Your task to perform on an android device: set an alarm Image 0: 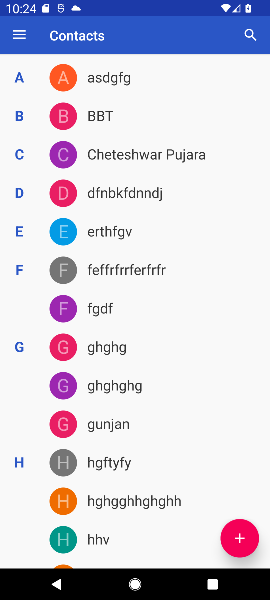
Step 0: press home button
Your task to perform on an android device: set an alarm Image 1: 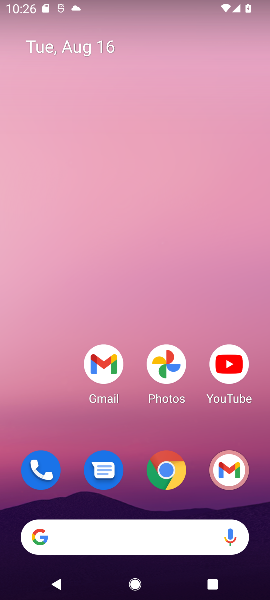
Step 1: drag from (69, 388) to (118, 2)
Your task to perform on an android device: set an alarm Image 2: 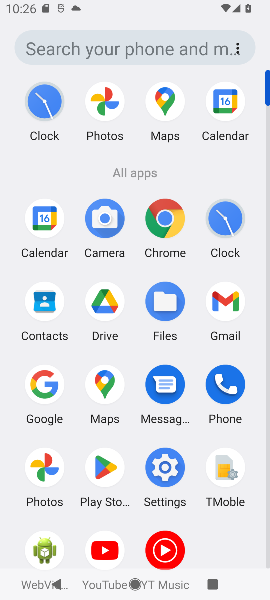
Step 2: click (48, 99)
Your task to perform on an android device: set an alarm Image 3: 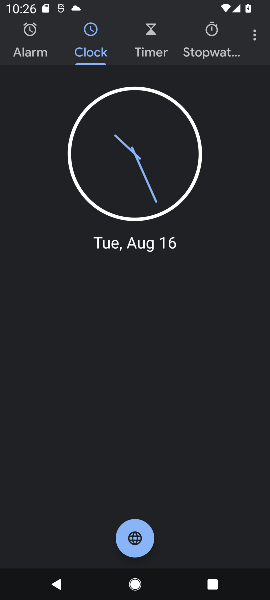
Step 3: click (30, 43)
Your task to perform on an android device: set an alarm Image 4: 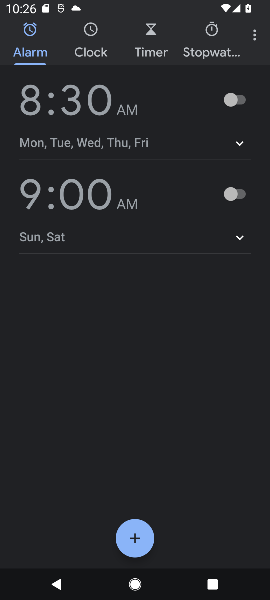
Step 4: click (139, 540)
Your task to perform on an android device: set an alarm Image 5: 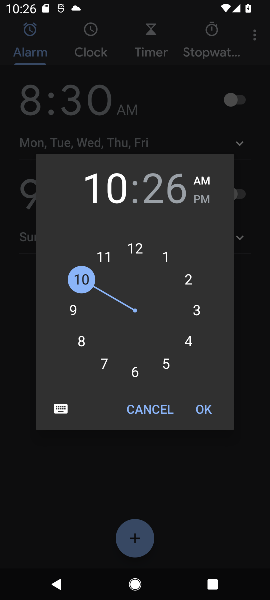
Step 5: click (165, 194)
Your task to perform on an android device: set an alarm Image 6: 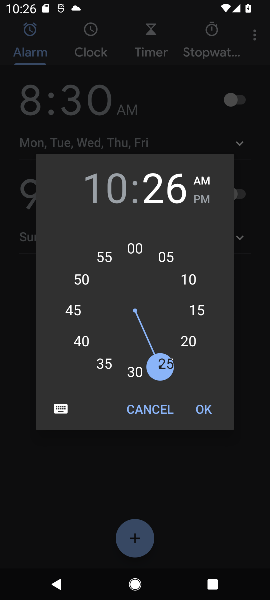
Step 6: click (135, 250)
Your task to perform on an android device: set an alarm Image 7: 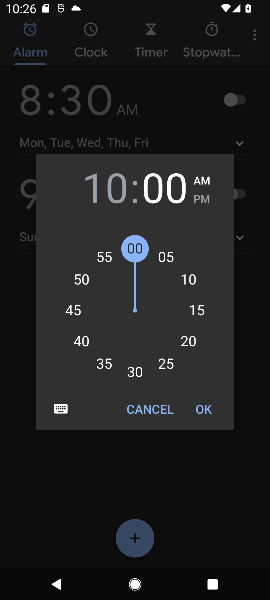
Step 7: click (204, 411)
Your task to perform on an android device: set an alarm Image 8: 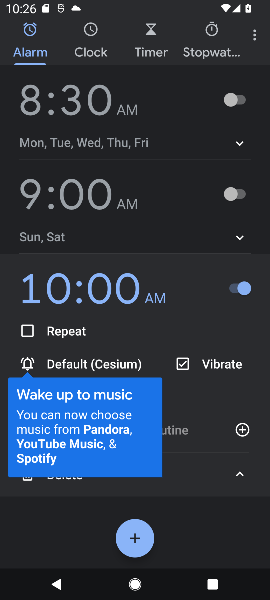
Step 8: task complete